Your task to perform on an android device: see creations saved in the google photos Image 0: 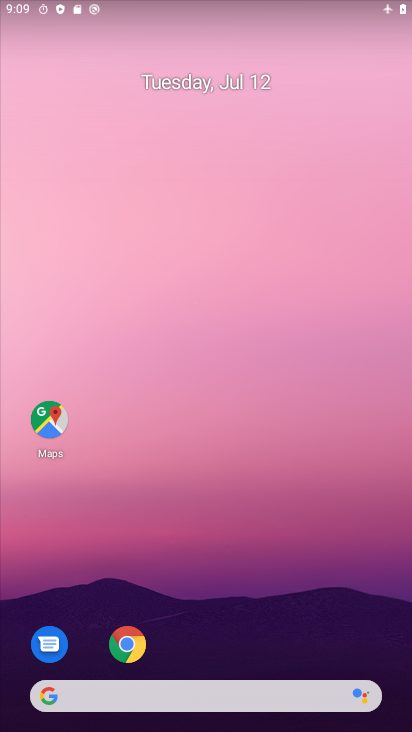
Step 0: drag from (191, 648) to (205, 228)
Your task to perform on an android device: see creations saved in the google photos Image 1: 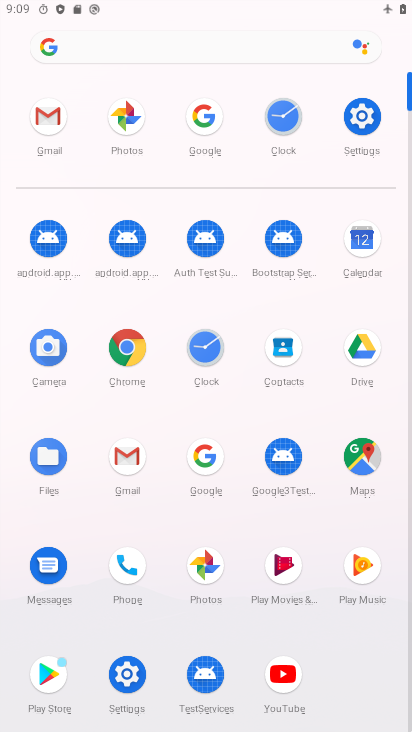
Step 1: click (118, 108)
Your task to perform on an android device: see creations saved in the google photos Image 2: 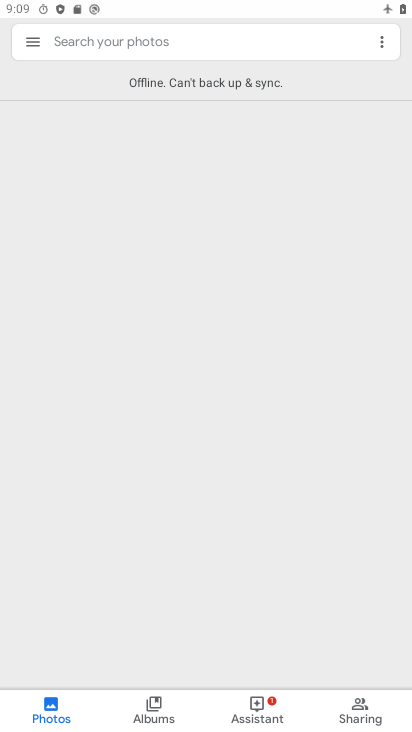
Step 2: click (136, 31)
Your task to perform on an android device: see creations saved in the google photos Image 3: 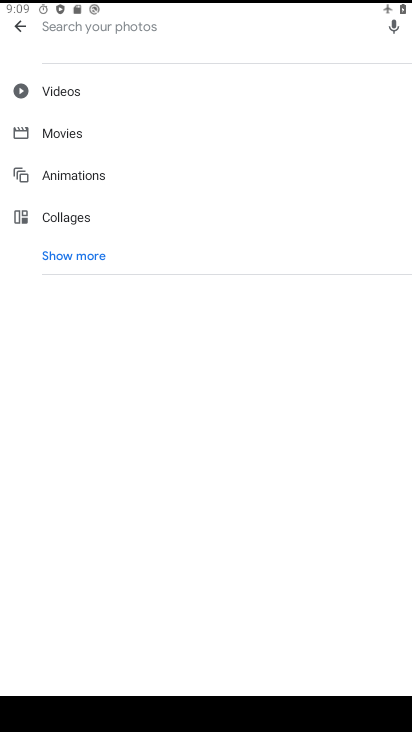
Step 3: click (71, 259)
Your task to perform on an android device: see creations saved in the google photos Image 4: 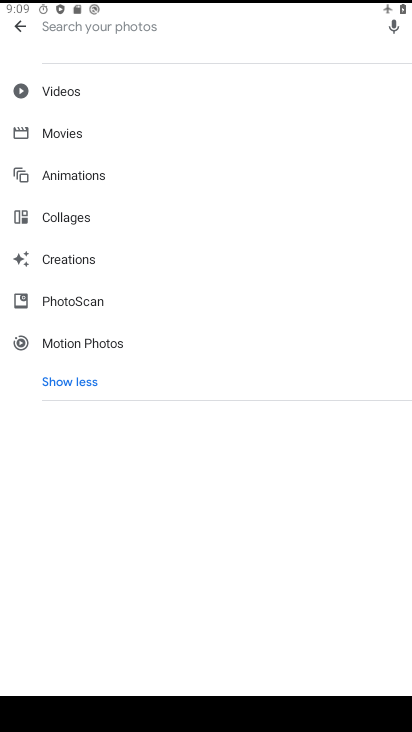
Step 4: click (85, 259)
Your task to perform on an android device: see creations saved in the google photos Image 5: 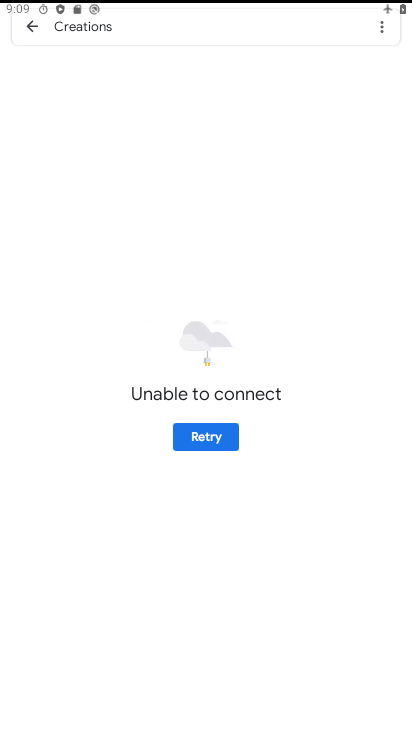
Step 5: task complete